Your task to perform on an android device: Go to accessibility settings Image 0: 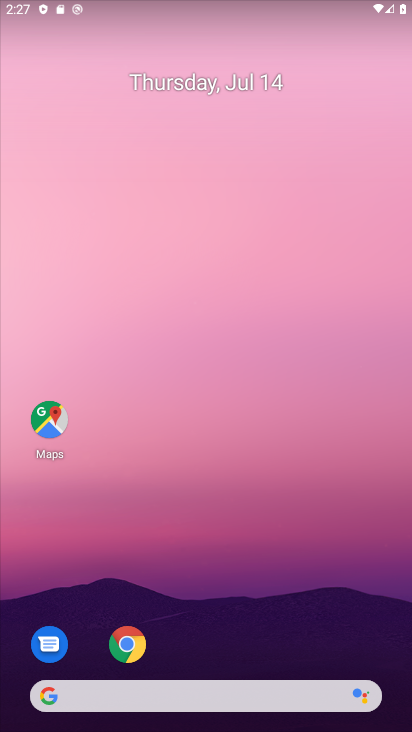
Step 0: drag from (246, 618) to (220, 0)
Your task to perform on an android device: Go to accessibility settings Image 1: 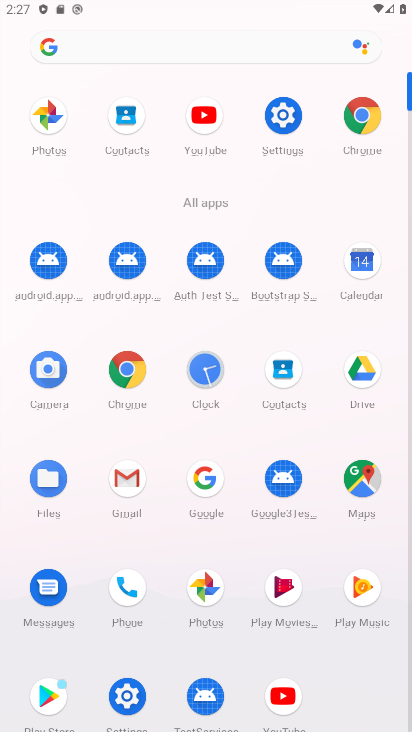
Step 1: click (286, 128)
Your task to perform on an android device: Go to accessibility settings Image 2: 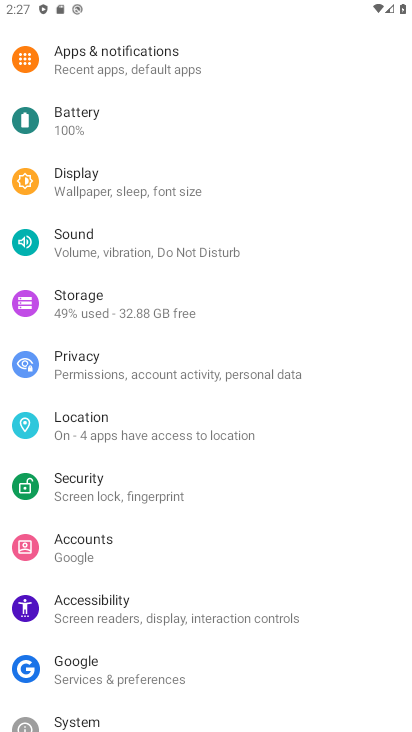
Step 2: click (239, 611)
Your task to perform on an android device: Go to accessibility settings Image 3: 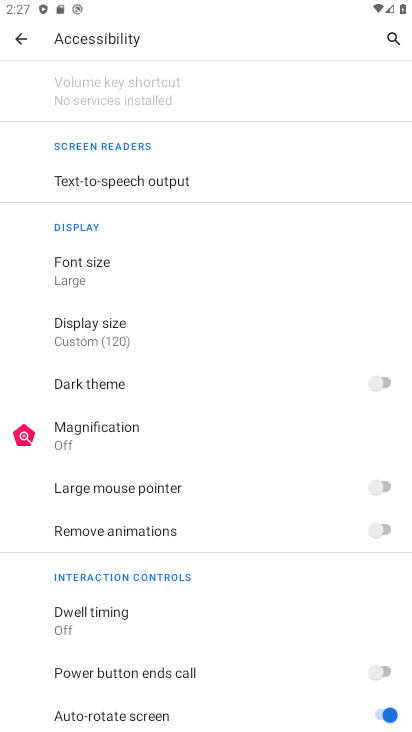
Step 3: task complete